Your task to perform on an android device: Open location settings Image 0: 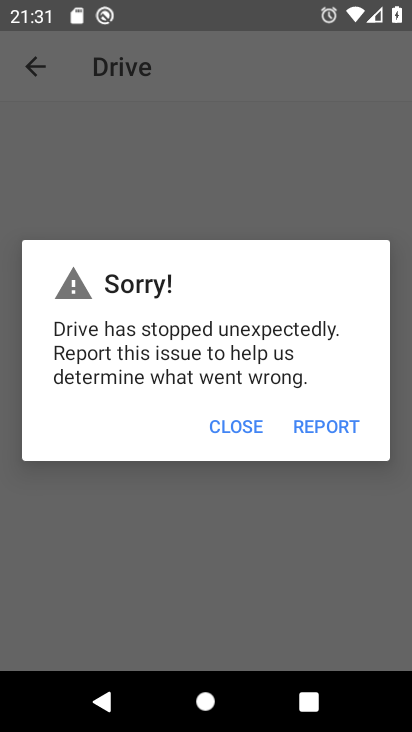
Step 0: press home button
Your task to perform on an android device: Open location settings Image 1: 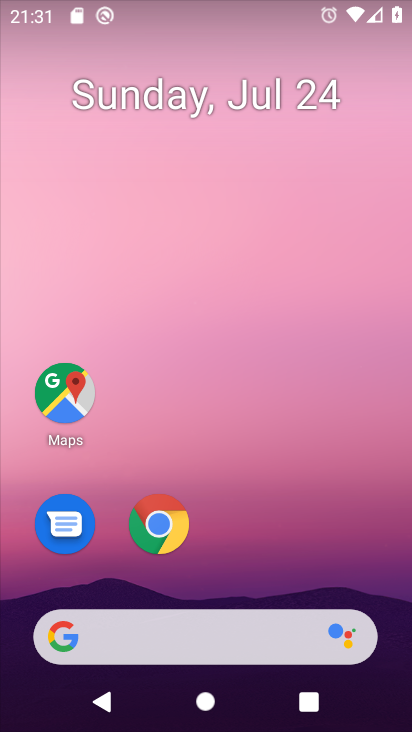
Step 1: drag from (296, 488) to (313, 93)
Your task to perform on an android device: Open location settings Image 2: 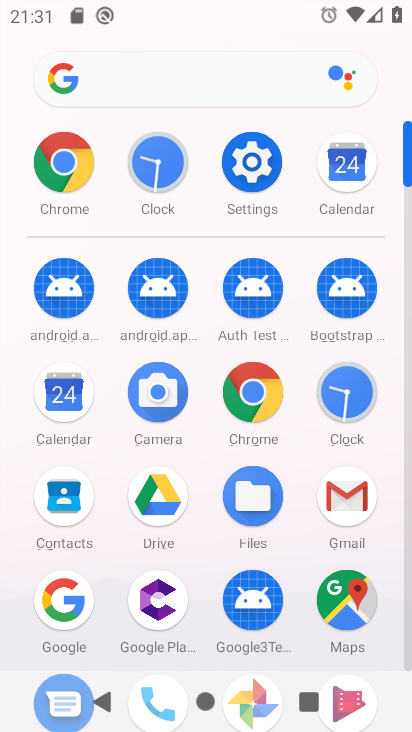
Step 2: click (262, 177)
Your task to perform on an android device: Open location settings Image 3: 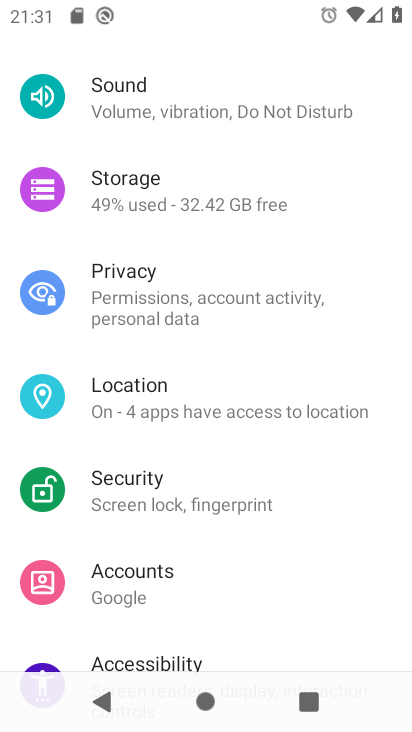
Step 3: click (188, 408)
Your task to perform on an android device: Open location settings Image 4: 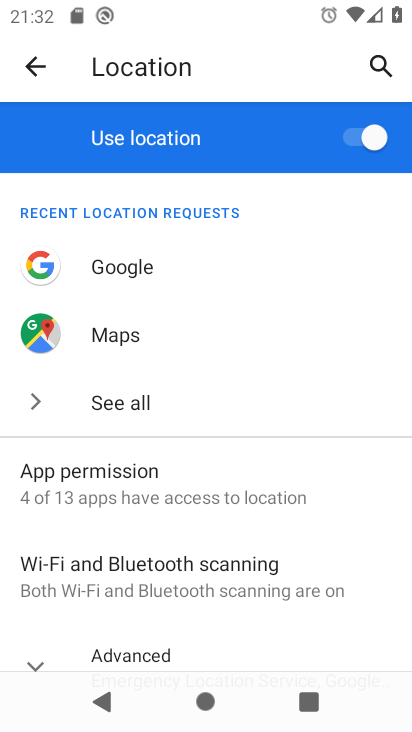
Step 4: task complete